Your task to perform on an android device: What's the weather? Image 0: 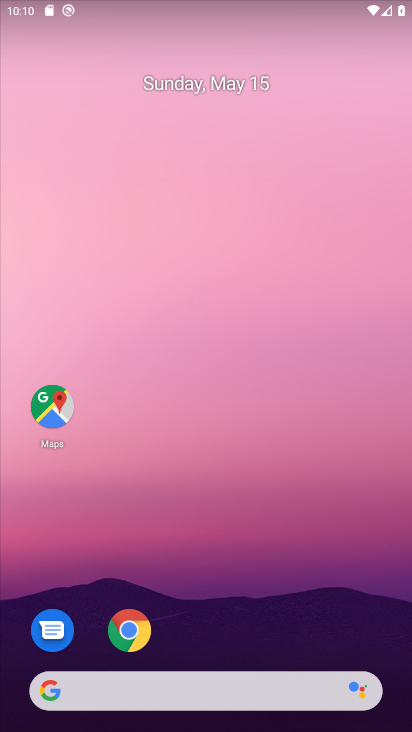
Step 0: press home button
Your task to perform on an android device: What's the weather? Image 1: 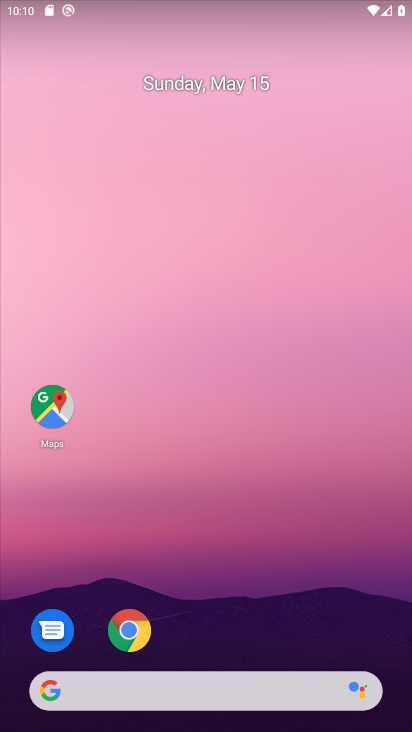
Step 1: drag from (207, 649) to (250, 42)
Your task to perform on an android device: What's the weather? Image 2: 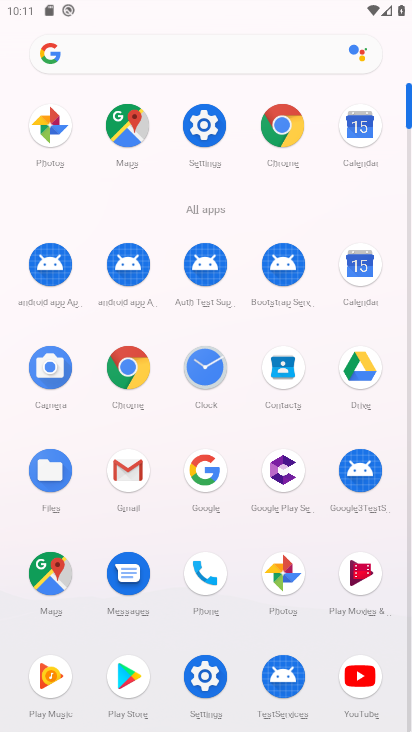
Step 2: press home button
Your task to perform on an android device: What's the weather? Image 3: 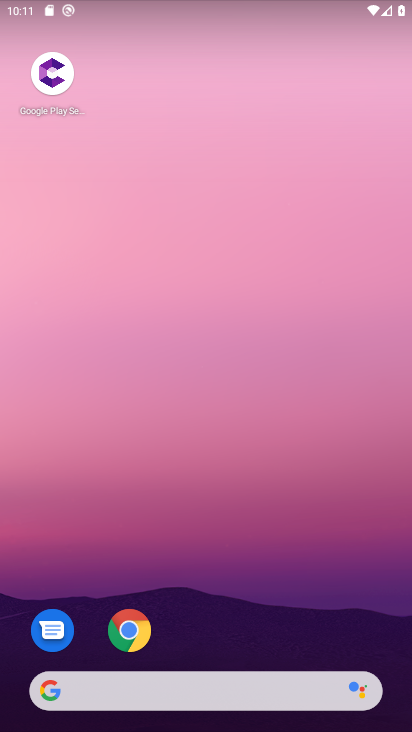
Step 3: drag from (22, 316) to (386, 313)
Your task to perform on an android device: What's the weather? Image 4: 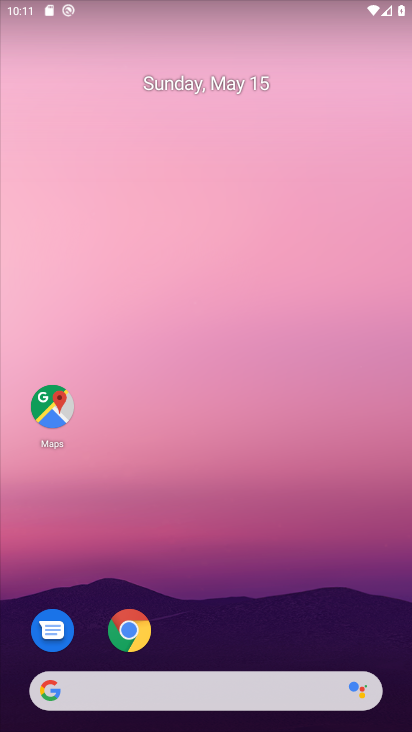
Step 4: drag from (15, 256) to (406, 284)
Your task to perform on an android device: What's the weather? Image 5: 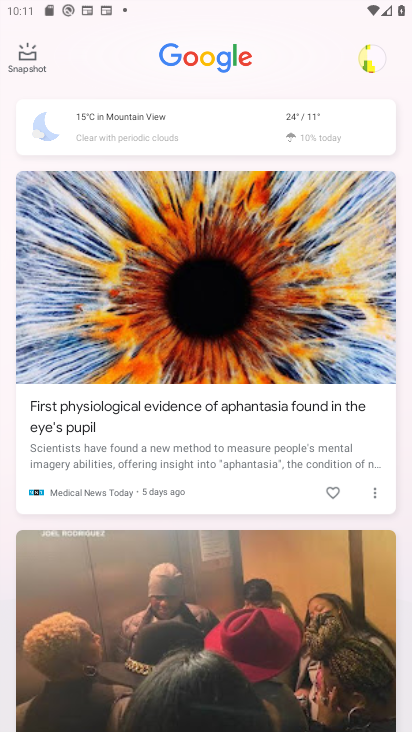
Step 5: click (294, 121)
Your task to perform on an android device: What's the weather? Image 6: 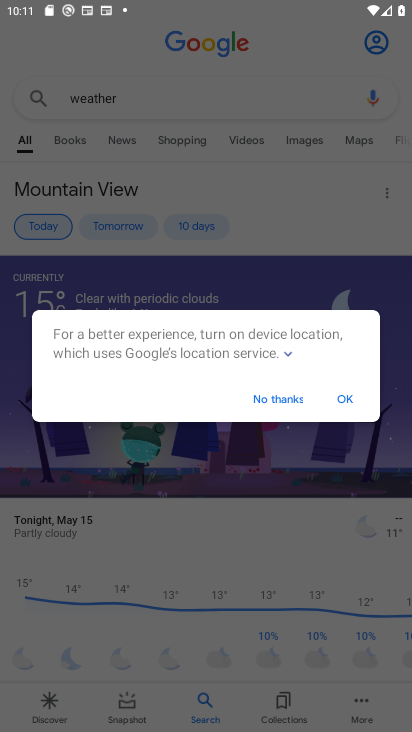
Step 6: click (336, 395)
Your task to perform on an android device: What's the weather? Image 7: 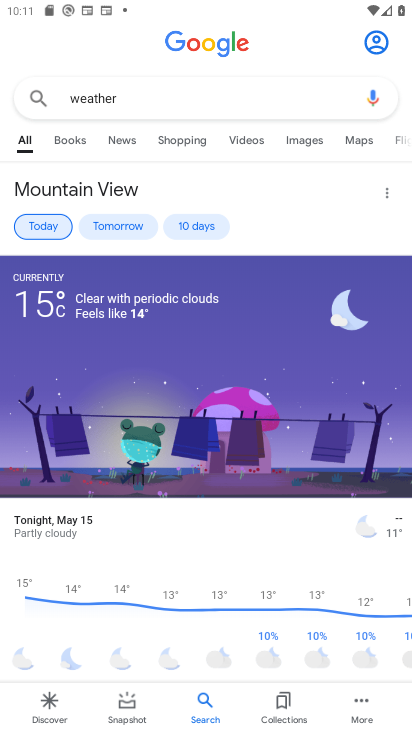
Step 7: drag from (232, 572) to (275, 91)
Your task to perform on an android device: What's the weather? Image 8: 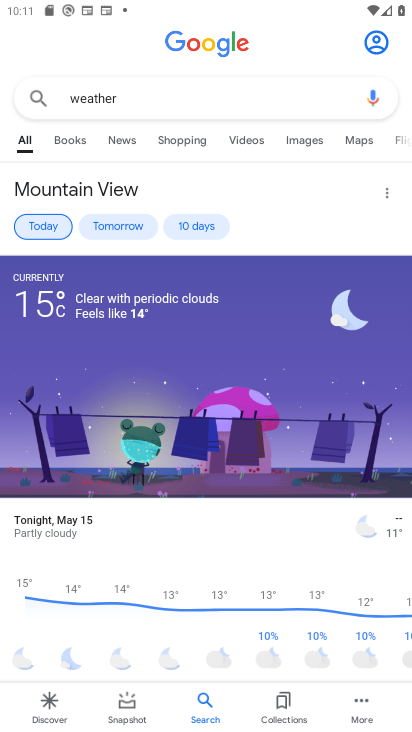
Step 8: drag from (216, 572) to (259, 227)
Your task to perform on an android device: What's the weather? Image 9: 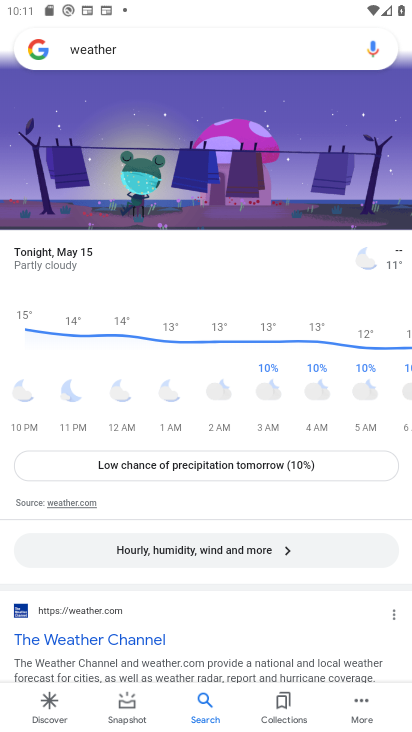
Step 9: click (265, 154)
Your task to perform on an android device: What's the weather? Image 10: 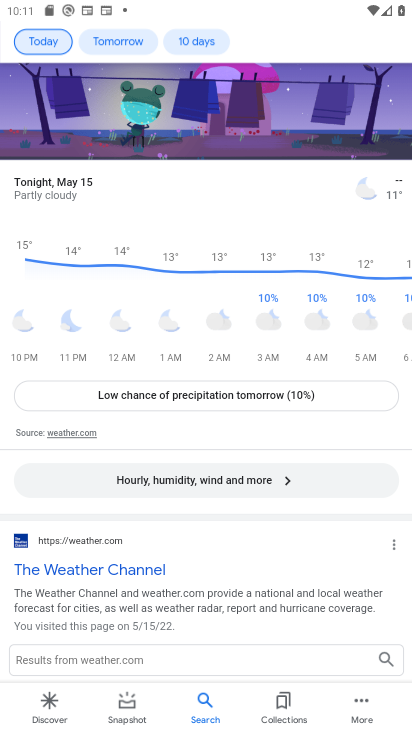
Step 10: task complete